Your task to perform on an android device: change notification settings in the gmail app Image 0: 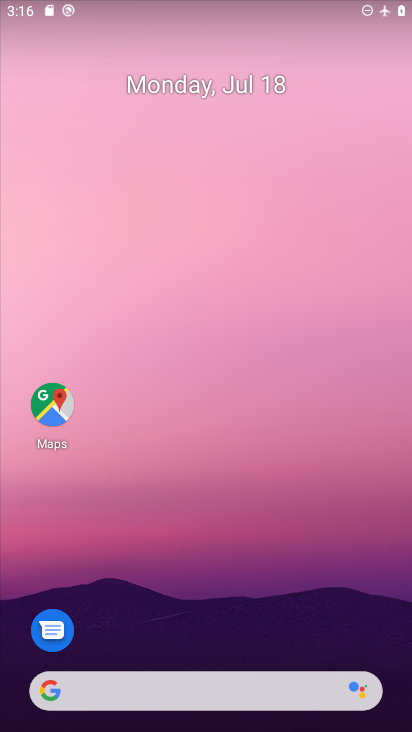
Step 0: drag from (275, 687) to (356, 4)
Your task to perform on an android device: change notification settings in the gmail app Image 1: 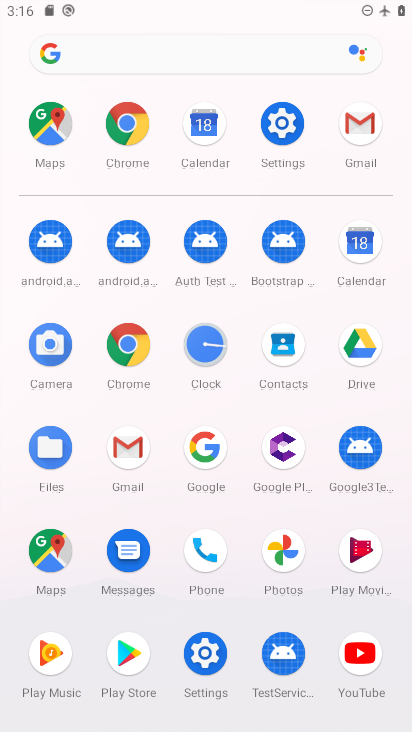
Step 1: click (132, 443)
Your task to perform on an android device: change notification settings in the gmail app Image 2: 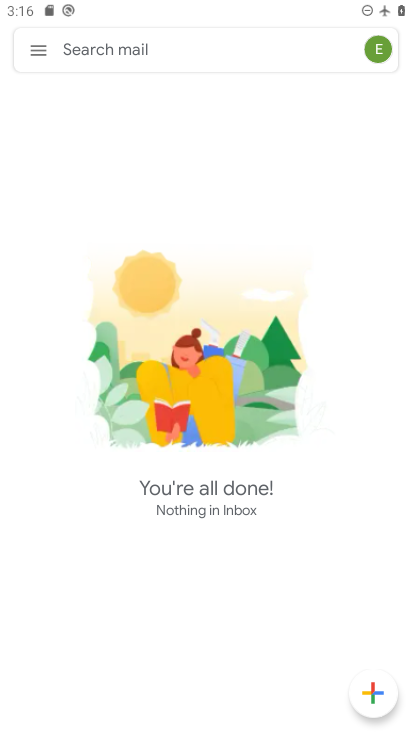
Step 2: click (43, 36)
Your task to perform on an android device: change notification settings in the gmail app Image 3: 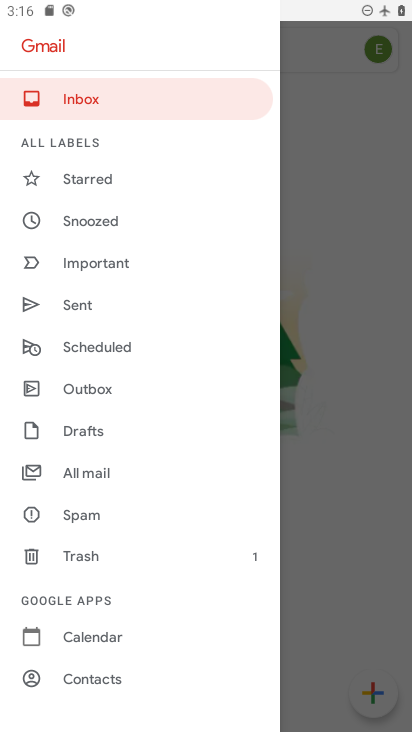
Step 3: drag from (115, 667) to (101, 259)
Your task to perform on an android device: change notification settings in the gmail app Image 4: 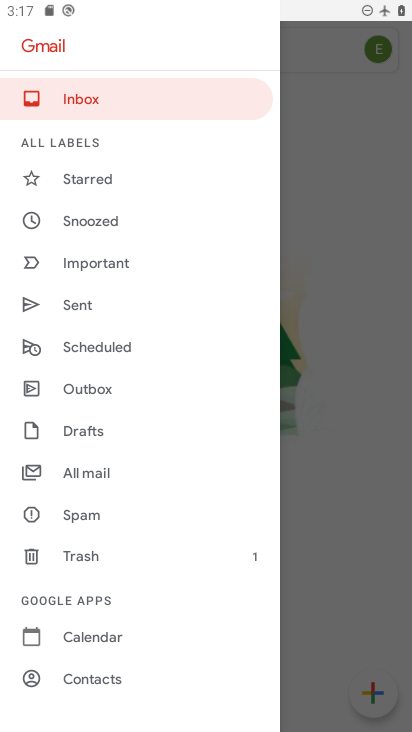
Step 4: drag from (121, 643) to (198, 330)
Your task to perform on an android device: change notification settings in the gmail app Image 5: 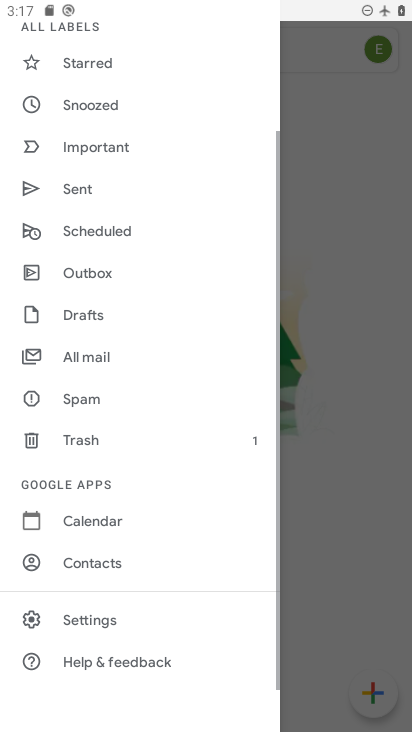
Step 5: click (152, 621)
Your task to perform on an android device: change notification settings in the gmail app Image 6: 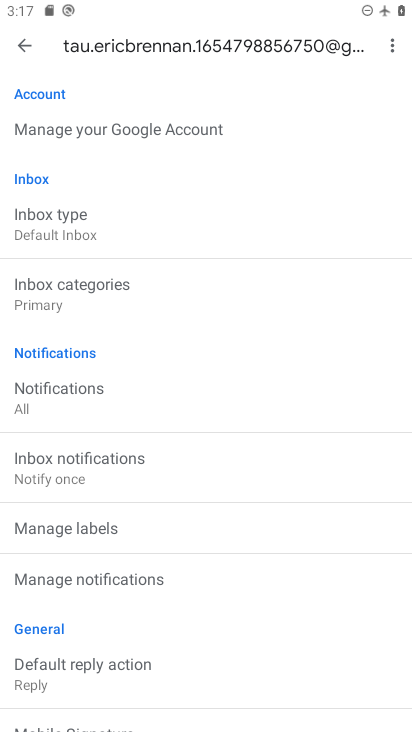
Step 6: click (112, 584)
Your task to perform on an android device: change notification settings in the gmail app Image 7: 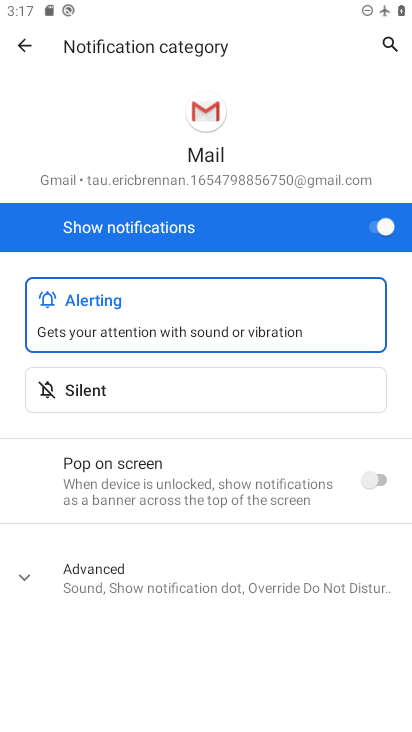
Step 7: task complete